Your task to perform on an android device: open app "Microsoft Outlook" (install if not already installed) and enter user name: "brand@gmail.com" and password: "persuasiveness" Image 0: 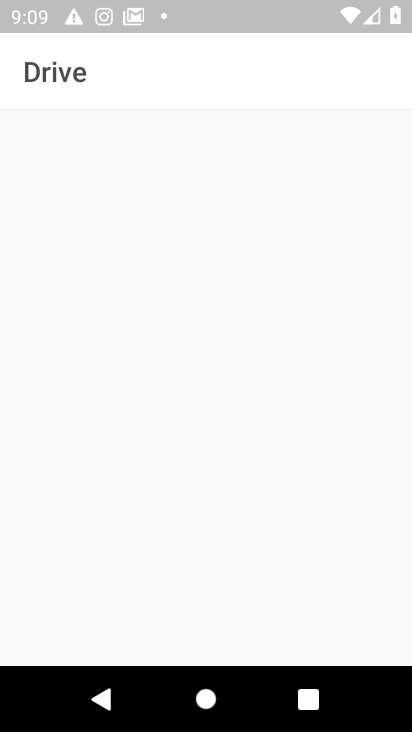
Step 0: task complete